Your task to perform on an android device: find which apps use the phone's location Image 0: 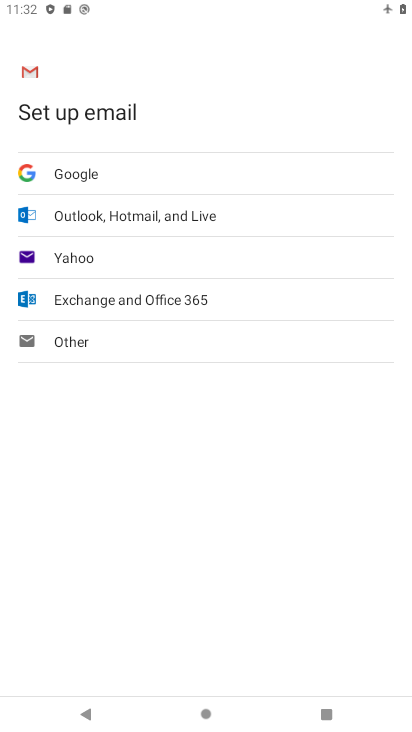
Step 0: press home button
Your task to perform on an android device: find which apps use the phone's location Image 1: 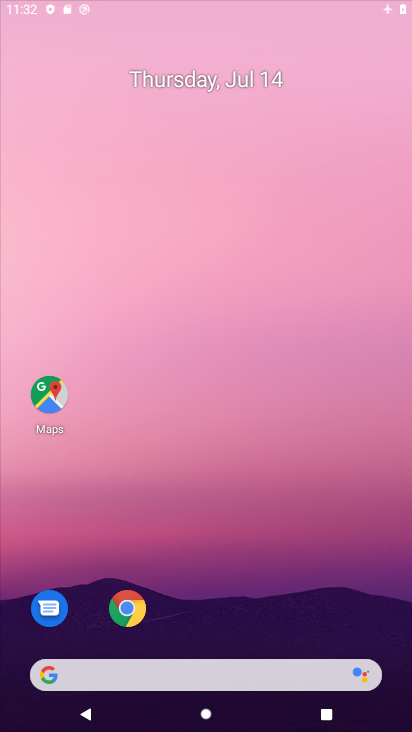
Step 1: drag from (220, 679) to (215, 43)
Your task to perform on an android device: find which apps use the phone's location Image 2: 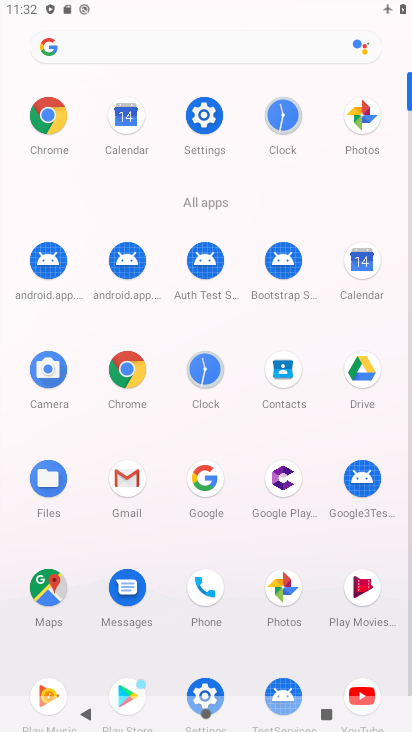
Step 2: click (189, 119)
Your task to perform on an android device: find which apps use the phone's location Image 3: 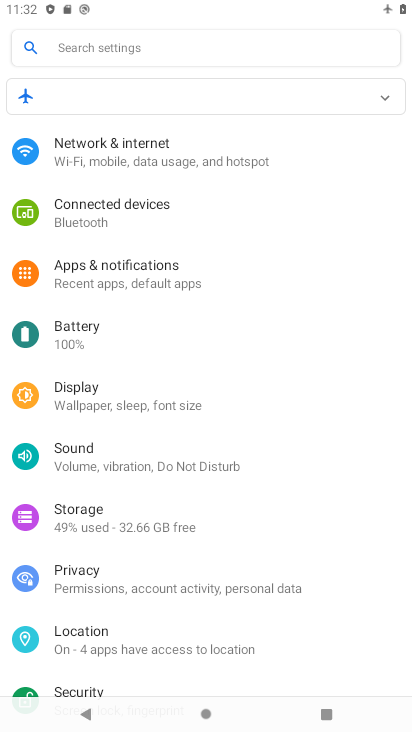
Step 3: click (76, 629)
Your task to perform on an android device: find which apps use the phone's location Image 4: 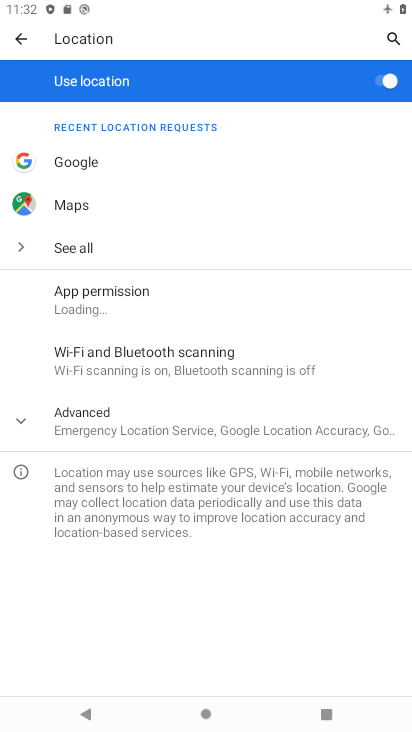
Step 4: click (153, 302)
Your task to perform on an android device: find which apps use the phone's location Image 5: 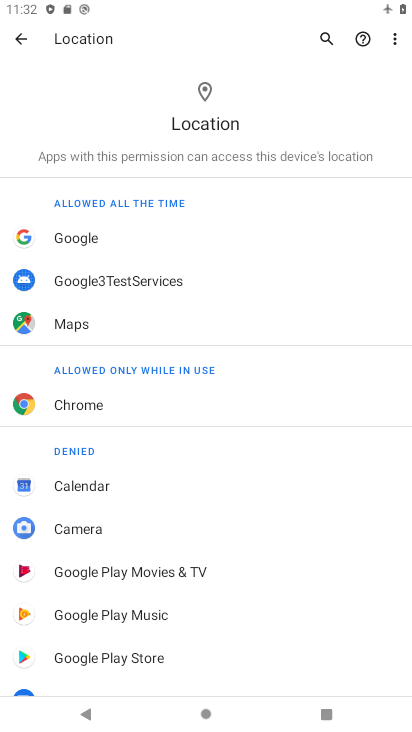
Step 5: task complete